Your task to perform on an android device: check the backup settings in the google photos Image 0: 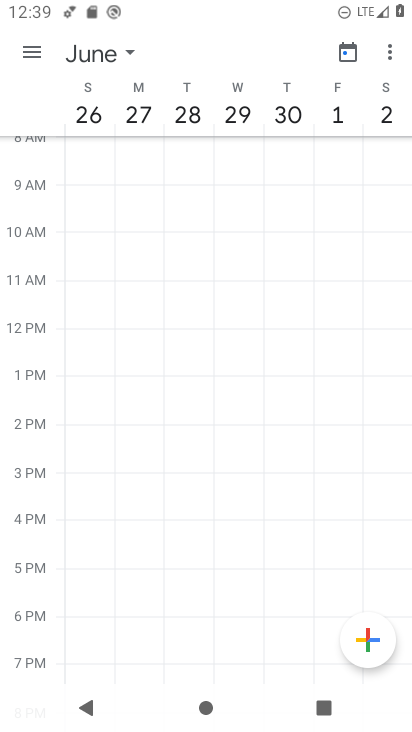
Step 0: press home button
Your task to perform on an android device: check the backup settings in the google photos Image 1: 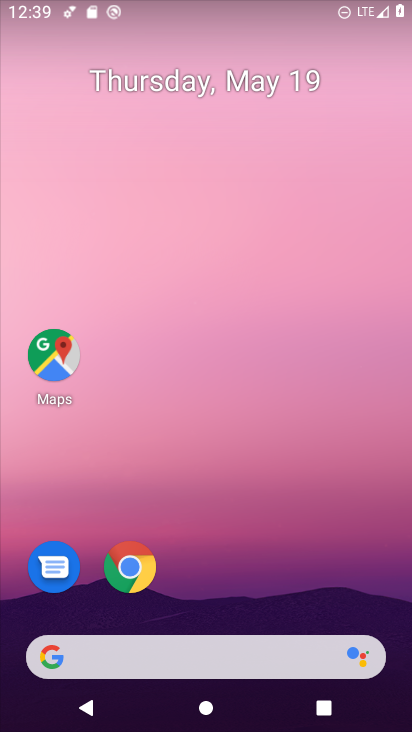
Step 1: drag from (284, 573) to (216, 94)
Your task to perform on an android device: check the backup settings in the google photos Image 2: 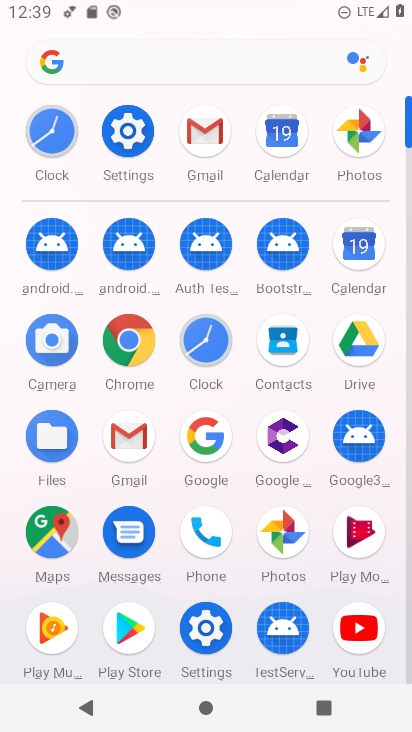
Step 2: click (351, 131)
Your task to perform on an android device: check the backup settings in the google photos Image 3: 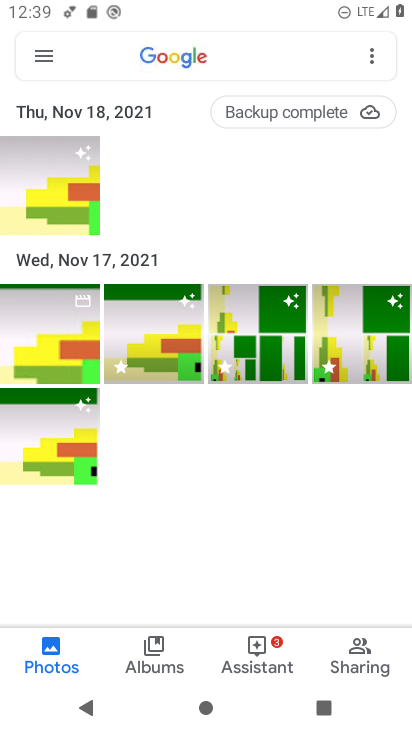
Step 3: click (49, 62)
Your task to perform on an android device: check the backup settings in the google photos Image 4: 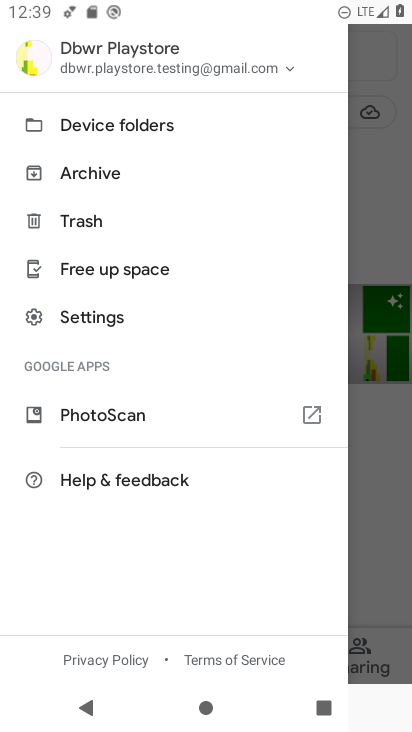
Step 4: click (113, 310)
Your task to perform on an android device: check the backup settings in the google photos Image 5: 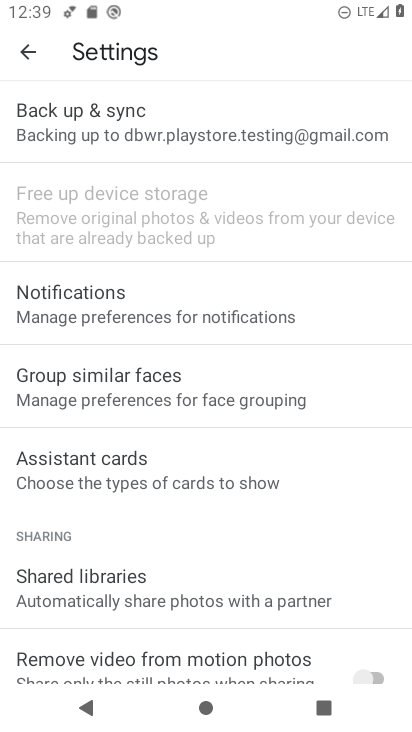
Step 5: click (156, 107)
Your task to perform on an android device: check the backup settings in the google photos Image 6: 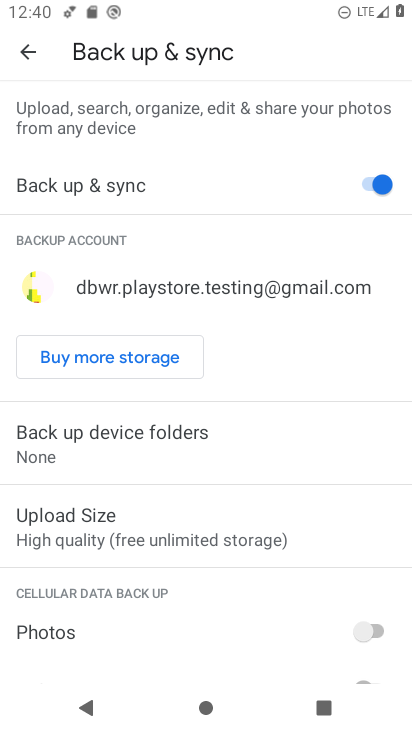
Step 6: task complete